Your task to perform on an android device: Clear the cart on amazon.com. Search for "usb-b" on amazon.com, select the first entry, add it to the cart, then select checkout. Image 0: 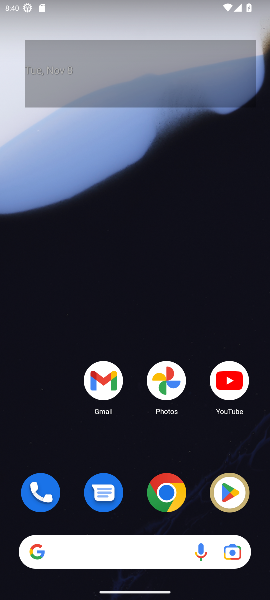
Step 0: click (78, 565)
Your task to perform on an android device: Clear the cart on amazon.com. Search for "usb-b" on amazon.com, select the first entry, add it to the cart, then select checkout. Image 1: 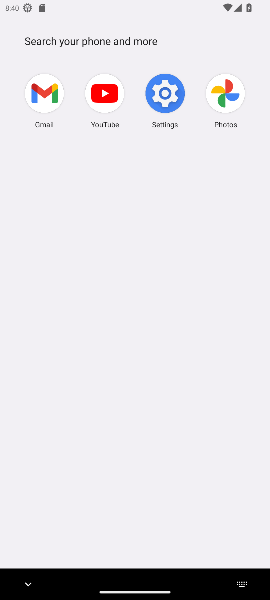
Step 1: type "amaazon"
Your task to perform on an android device: Clear the cart on amazon.com. Search for "usb-b" on amazon.com, select the first entry, add it to the cart, then select checkout. Image 2: 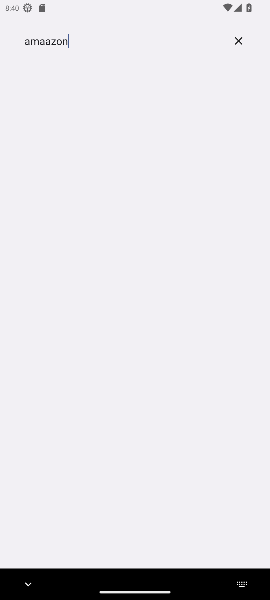
Step 2: task complete